Your task to perform on an android device: find snoozed emails in the gmail app Image 0: 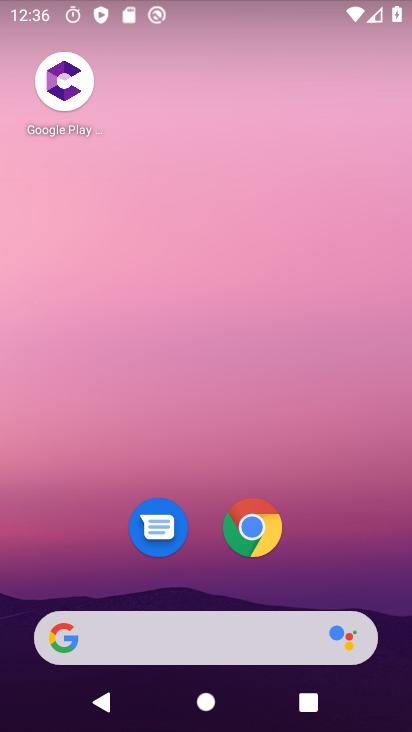
Step 0: drag from (191, 545) to (252, 46)
Your task to perform on an android device: find snoozed emails in the gmail app Image 1: 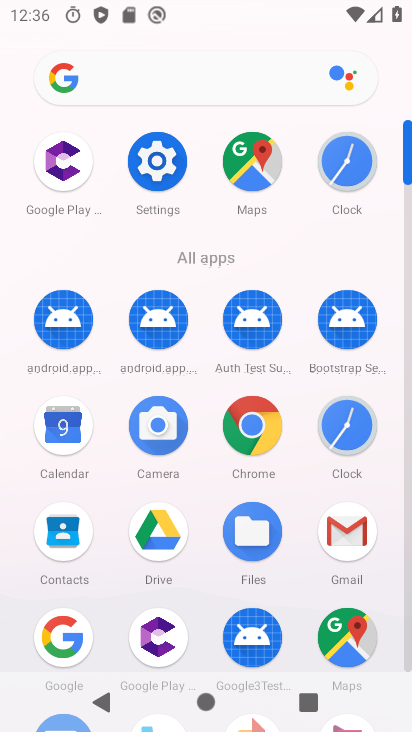
Step 1: click (356, 516)
Your task to perform on an android device: find snoozed emails in the gmail app Image 2: 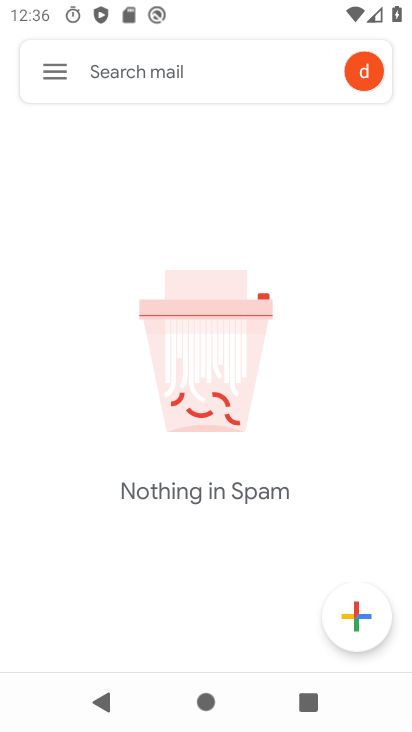
Step 2: click (60, 70)
Your task to perform on an android device: find snoozed emails in the gmail app Image 3: 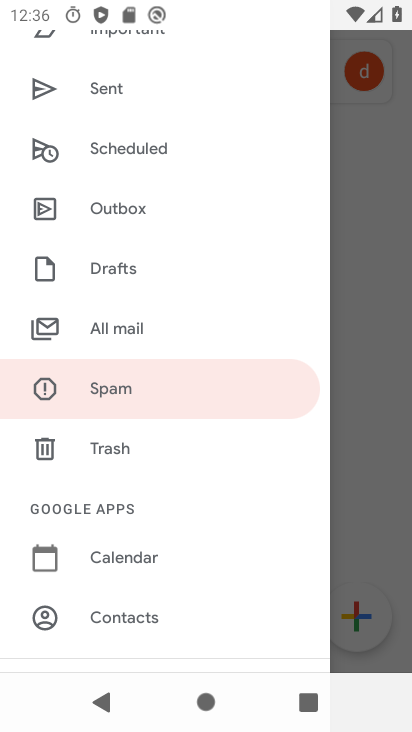
Step 3: drag from (156, 163) to (137, 621)
Your task to perform on an android device: find snoozed emails in the gmail app Image 4: 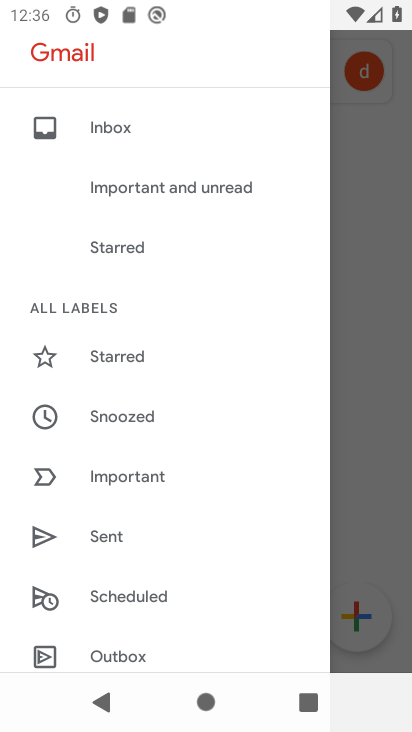
Step 4: click (139, 416)
Your task to perform on an android device: find snoozed emails in the gmail app Image 5: 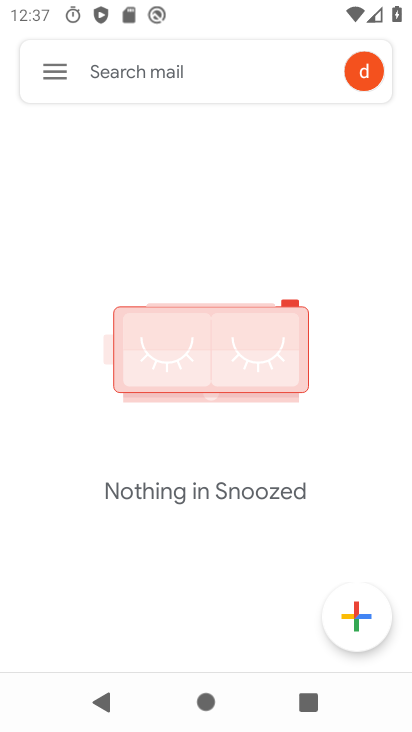
Step 5: task complete